Your task to perform on an android device: change the upload size in google photos Image 0: 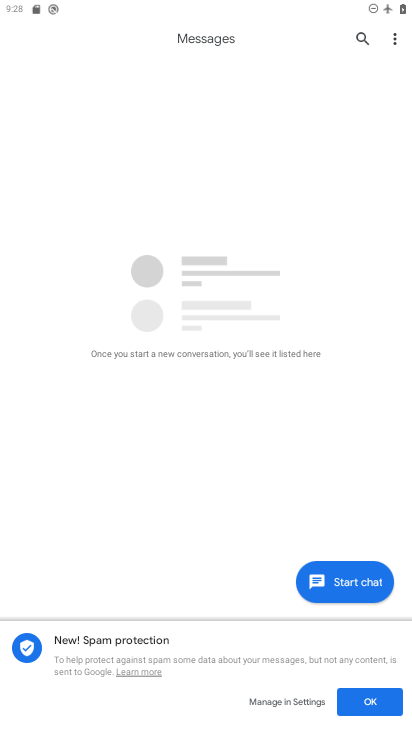
Step 0: press home button
Your task to perform on an android device: change the upload size in google photos Image 1: 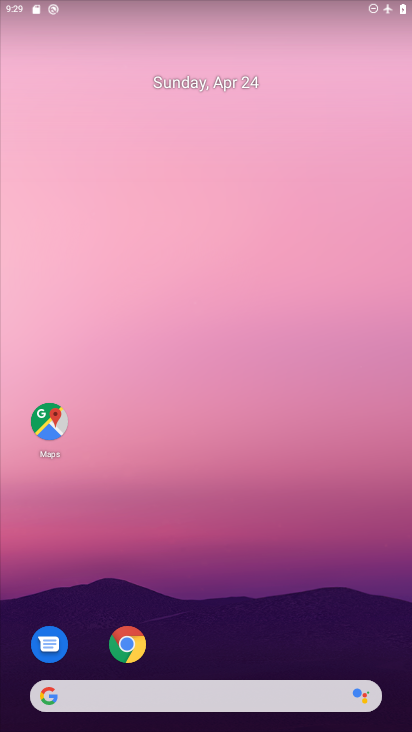
Step 1: drag from (210, 666) to (143, 75)
Your task to perform on an android device: change the upload size in google photos Image 2: 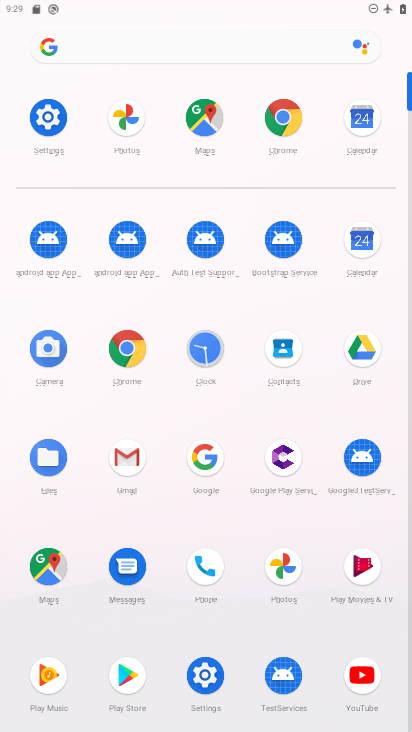
Step 2: click (282, 568)
Your task to perform on an android device: change the upload size in google photos Image 3: 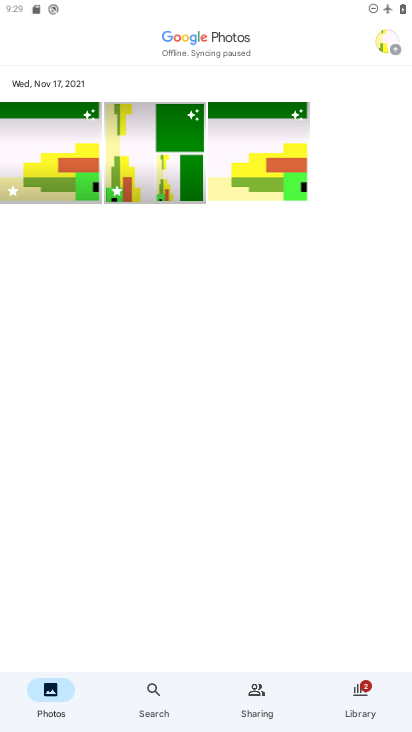
Step 3: click (398, 26)
Your task to perform on an android device: change the upload size in google photos Image 4: 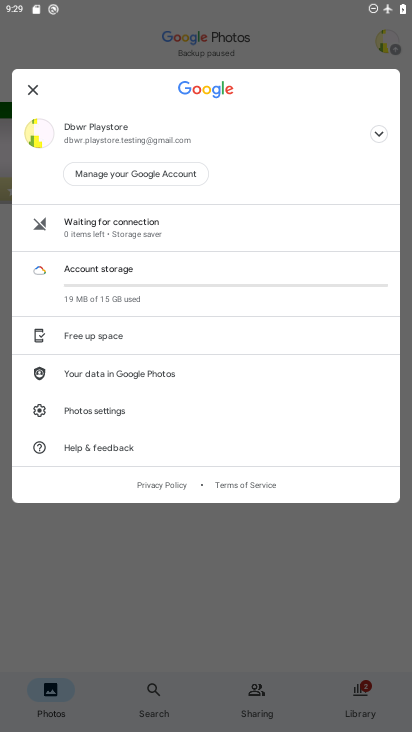
Step 4: click (108, 402)
Your task to perform on an android device: change the upload size in google photos Image 5: 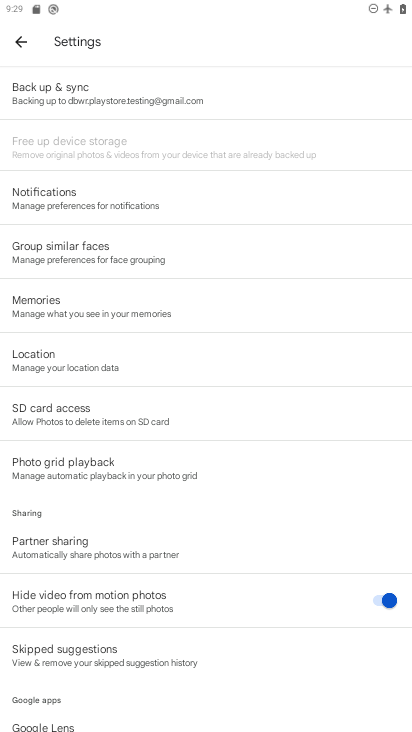
Step 5: click (96, 89)
Your task to perform on an android device: change the upload size in google photos Image 6: 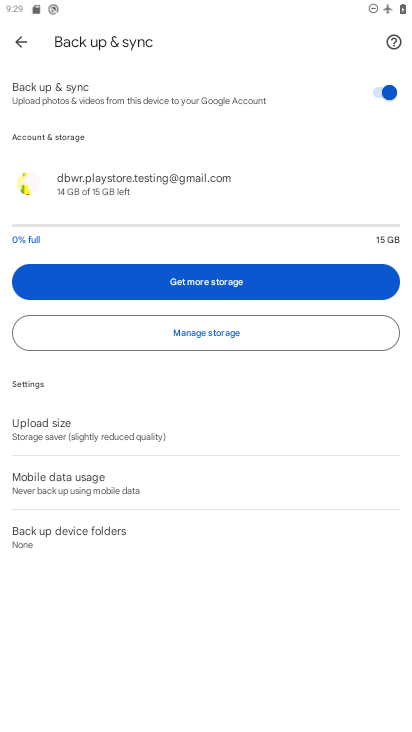
Step 6: click (84, 418)
Your task to perform on an android device: change the upload size in google photos Image 7: 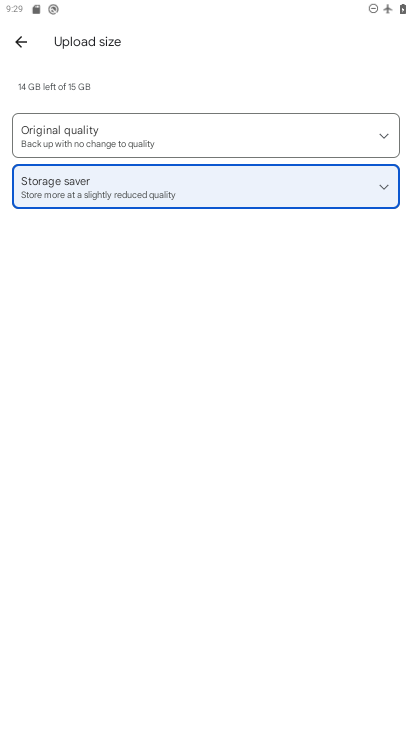
Step 7: click (107, 114)
Your task to perform on an android device: change the upload size in google photos Image 8: 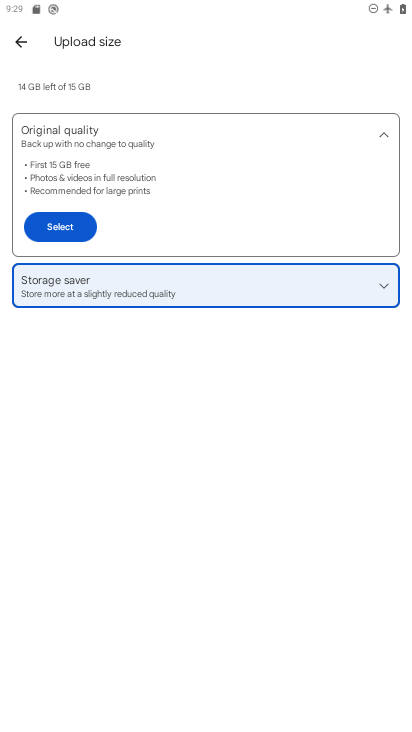
Step 8: click (50, 226)
Your task to perform on an android device: change the upload size in google photos Image 9: 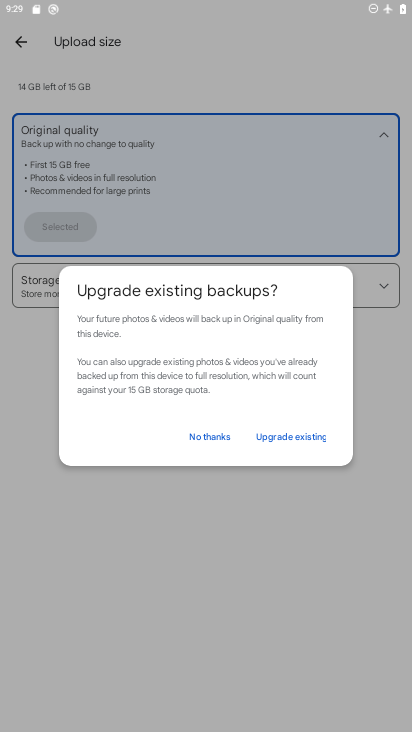
Step 9: click (297, 432)
Your task to perform on an android device: change the upload size in google photos Image 10: 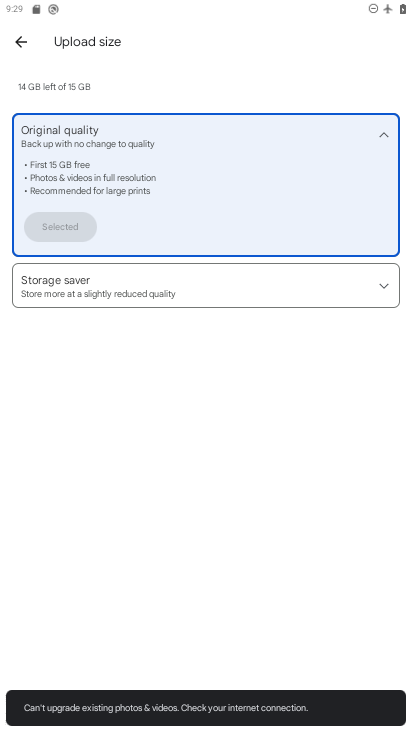
Step 10: task complete